Your task to perform on an android device: View the shopping cart on costco. Search for "razer blade" on costco, select the first entry, add it to the cart, then select checkout. Image 0: 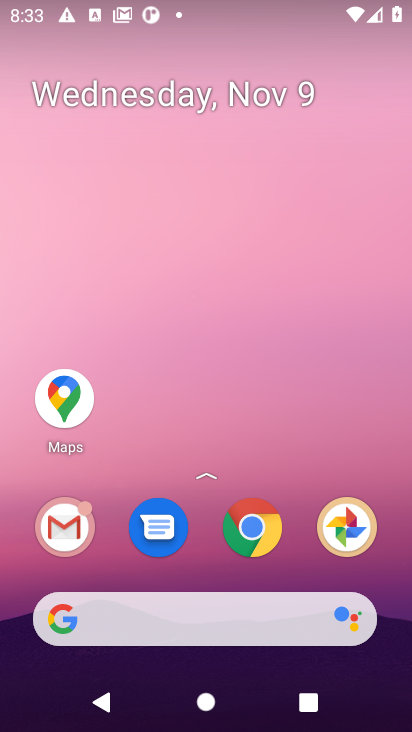
Step 0: click (257, 540)
Your task to perform on an android device: View the shopping cart on costco. Search for "razer blade" on costco, select the first entry, add it to the cart, then select checkout. Image 1: 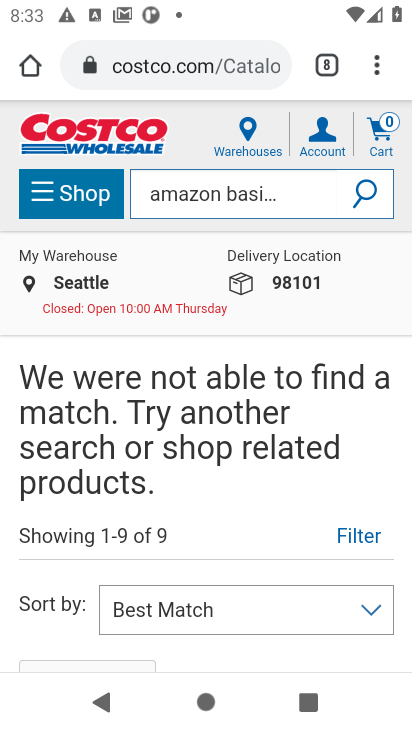
Step 1: click (384, 136)
Your task to perform on an android device: View the shopping cart on costco. Search for "razer blade" on costco, select the first entry, add it to the cart, then select checkout. Image 2: 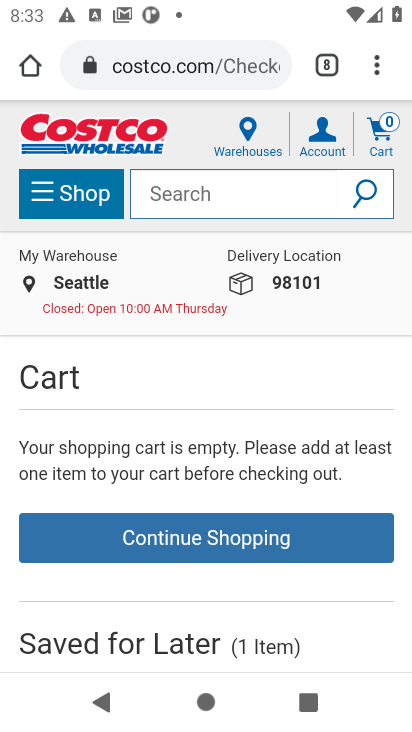
Step 2: click (216, 204)
Your task to perform on an android device: View the shopping cart on costco. Search for "razer blade" on costco, select the first entry, add it to the cart, then select checkout. Image 3: 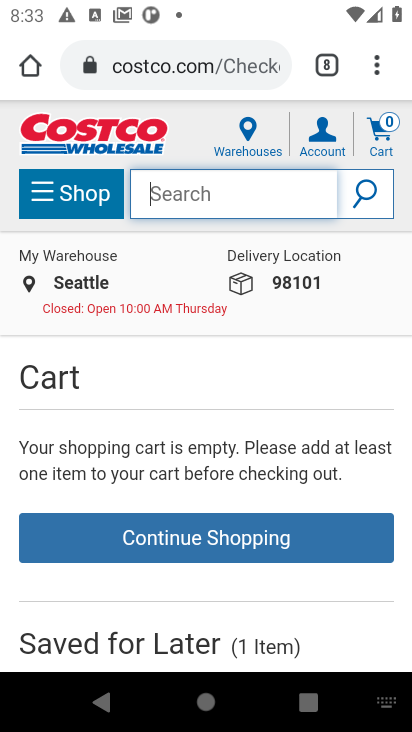
Step 3: type "razer blade"
Your task to perform on an android device: View the shopping cart on costco. Search for "razer blade" on costco, select the first entry, add it to the cart, then select checkout. Image 4: 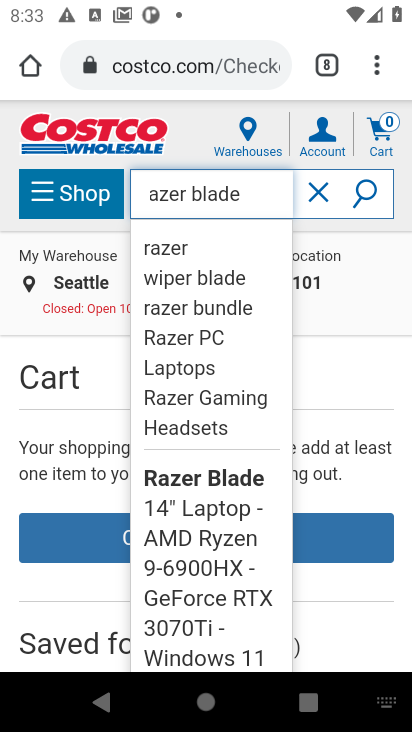
Step 4: click (374, 194)
Your task to perform on an android device: View the shopping cart on costco. Search for "razer blade" on costco, select the first entry, add it to the cart, then select checkout. Image 5: 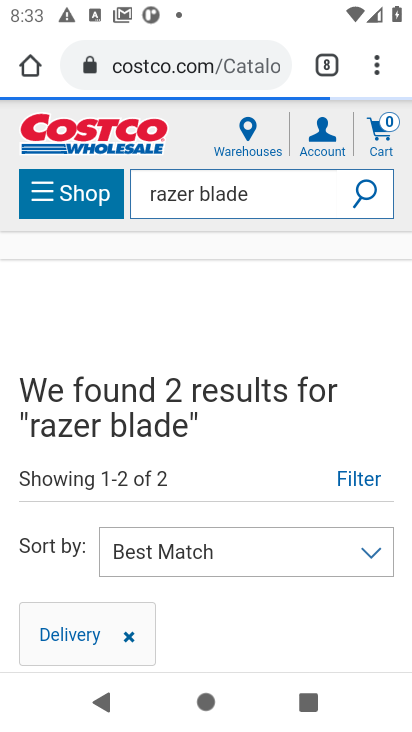
Step 5: drag from (226, 435) to (233, 241)
Your task to perform on an android device: View the shopping cart on costco. Search for "razer blade" on costco, select the first entry, add it to the cart, then select checkout. Image 6: 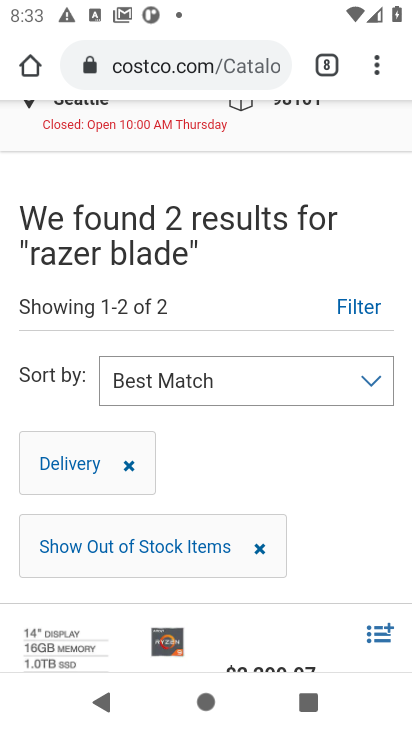
Step 6: drag from (223, 449) to (218, 283)
Your task to perform on an android device: View the shopping cart on costco. Search for "razer blade" on costco, select the first entry, add it to the cart, then select checkout. Image 7: 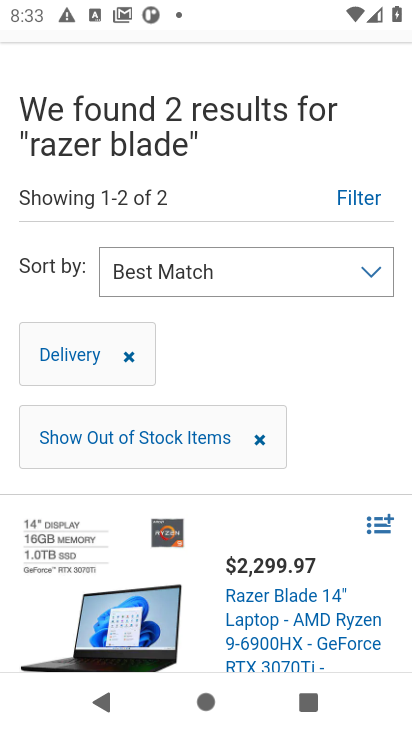
Step 7: drag from (195, 573) to (200, 376)
Your task to perform on an android device: View the shopping cart on costco. Search for "razer blade" on costco, select the first entry, add it to the cart, then select checkout. Image 8: 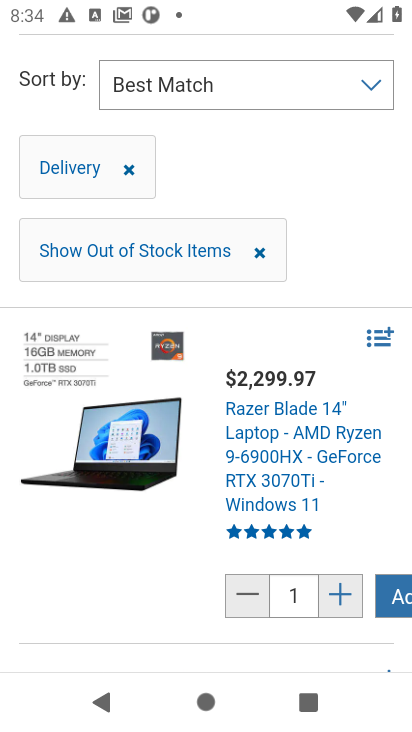
Step 8: click (394, 600)
Your task to perform on an android device: View the shopping cart on costco. Search for "razer blade" on costco, select the first entry, add it to the cart, then select checkout. Image 9: 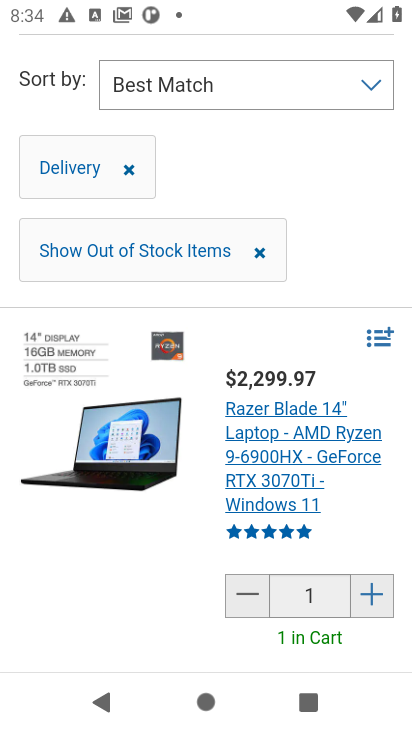
Step 9: drag from (324, 210) to (298, 492)
Your task to perform on an android device: View the shopping cart on costco. Search for "razer blade" on costco, select the first entry, add it to the cart, then select checkout. Image 10: 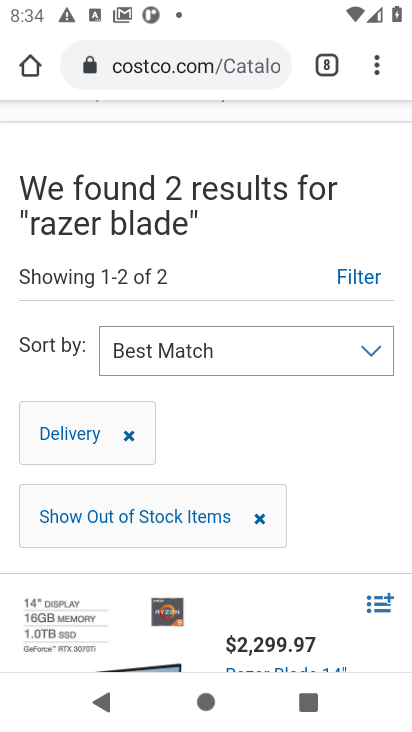
Step 10: drag from (350, 207) to (278, 504)
Your task to perform on an android device: View the shopping cart on costco. Search for "razer blade" on costco, select the first entry, add it to the cart, then select checkout. Image 11: 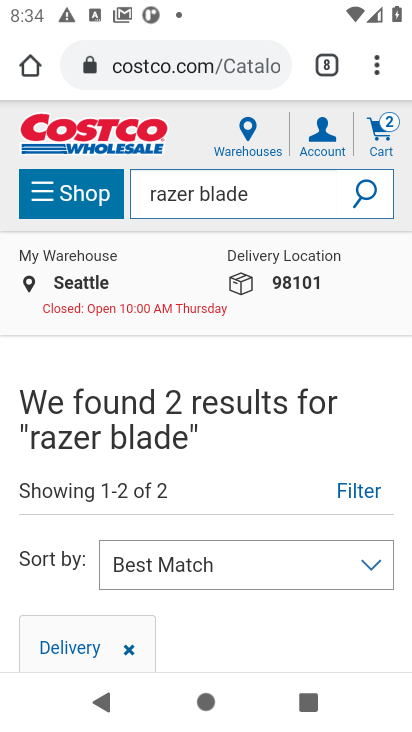
Step 11: click (380, 145)
Your task to perform on an android device: View the shopping cart on costco. Search for "razer blade" on costco, select the first entry, add it to the cart, then select checkout. Image 12: 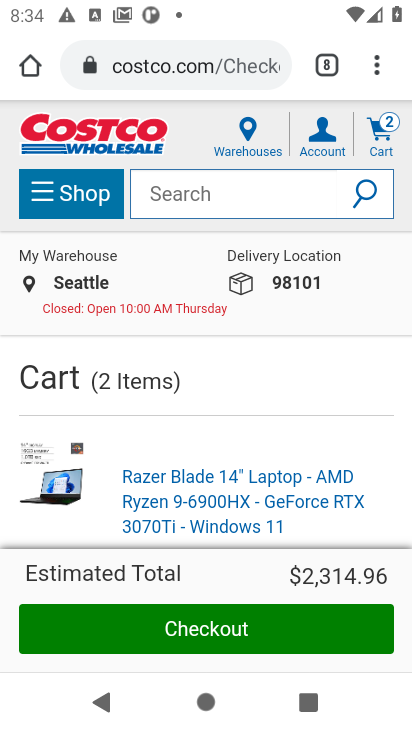
Step 12: click (196, 633)
Your task to perform on an android device: View the shopping cart on costco. Search for "razer blade" on costco, select the first entry, add it to the cart, then select checkout. Image 13: 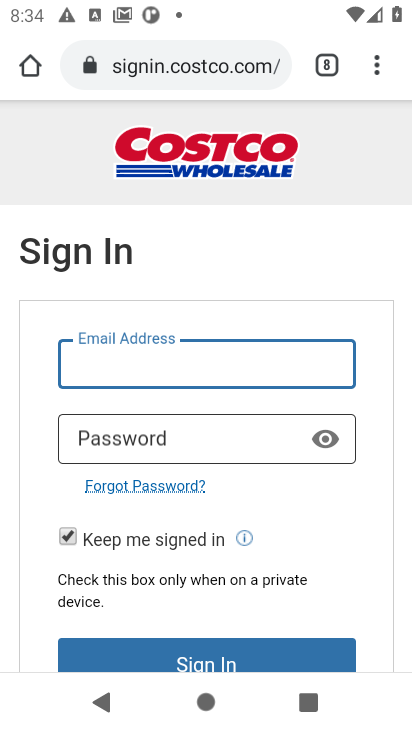
Step 13: task complete